Your task to perform on an android device: Go to sound settings Image 0: 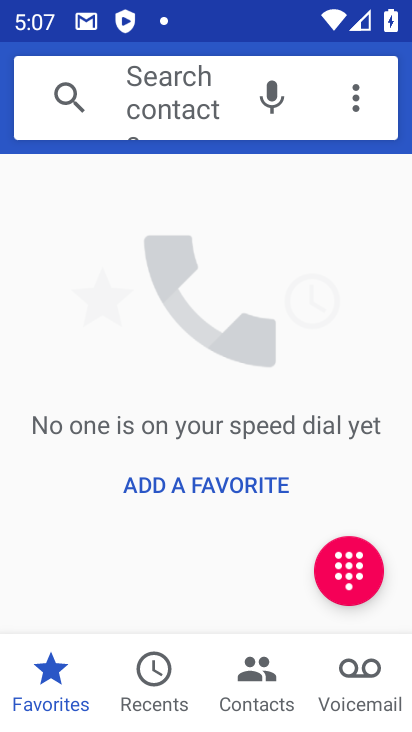
Step 0: press home button
Your task to perform on an android device: Go to sound settings Image 1: 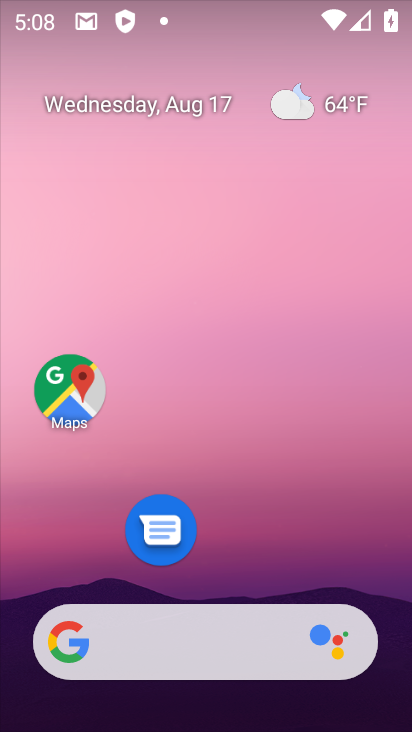
Step 1: drag from (192, 581) to (198, 0)
Your task to perform on an android device: Go to sound settings Image 2: 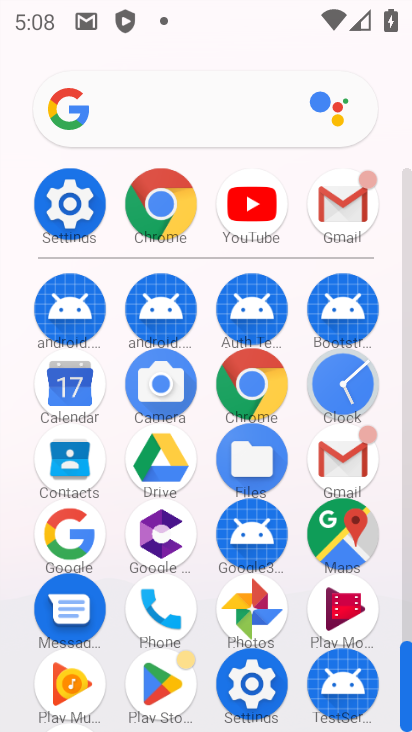
Step 2: click (69, 210)
Your task to perform on an android device: Go to sound settings Image 3: 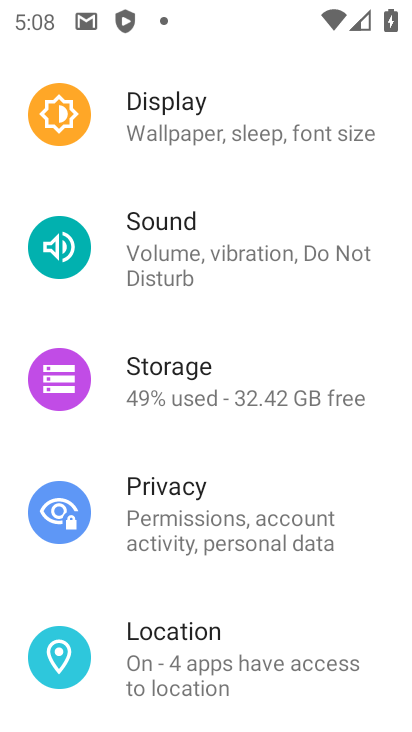
Step 3: click (180, 245)
Your task to perform on an android device: Go to sound settings Image 4: 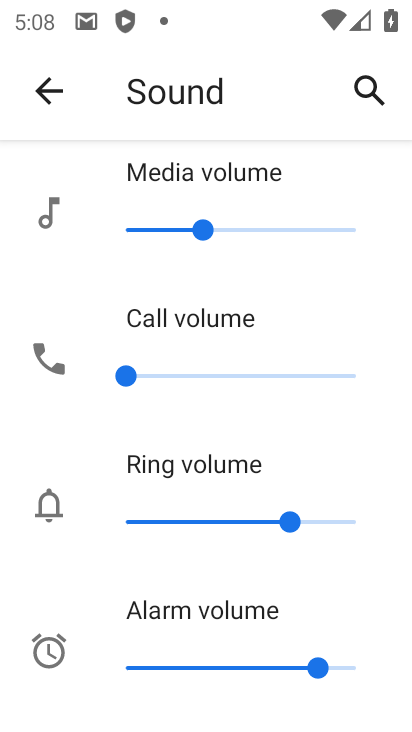
Step 4: task complete